Your task to perform on an android device: Play the last video I watched on Youtube Image 0: 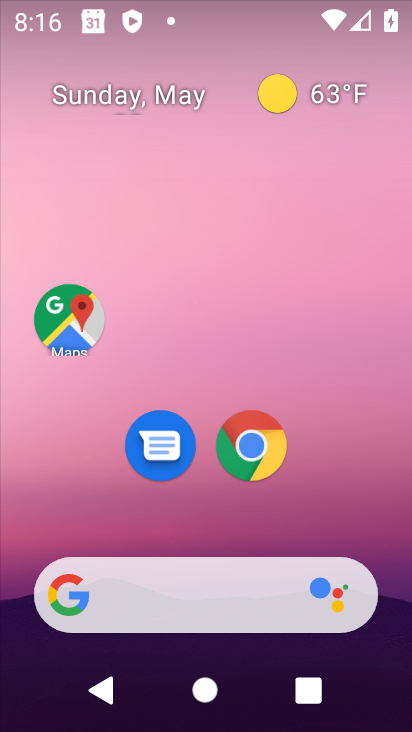
Step 0: drag from (367, 525) to (386, 208)
Your task to perform on an android device: Play the last video I watched on Youtube Image 1: 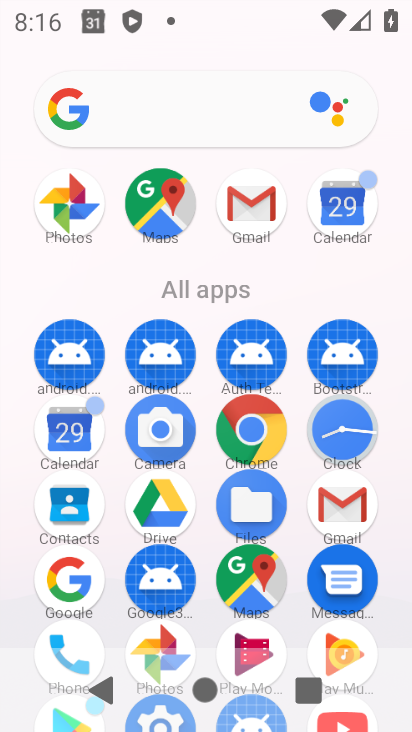
Step 1: drag from (392, 542) to (387, 331)
Your task to perform on an android device: Play the last video I watched on Youtube Image 2: 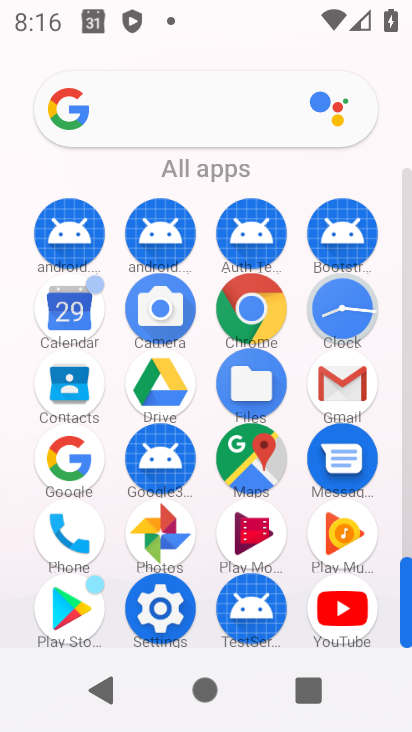
Step 2: click (339, 615)
Your task to perform on an android device: Play the last video I watched on Youtube Image 3: 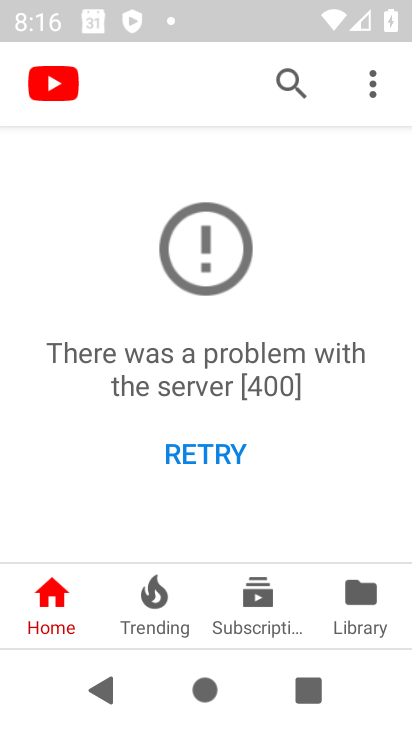
Step 3: click (359, 613)
Your task to perform on an android device: Play the last video I watched on Youtube Image 4: 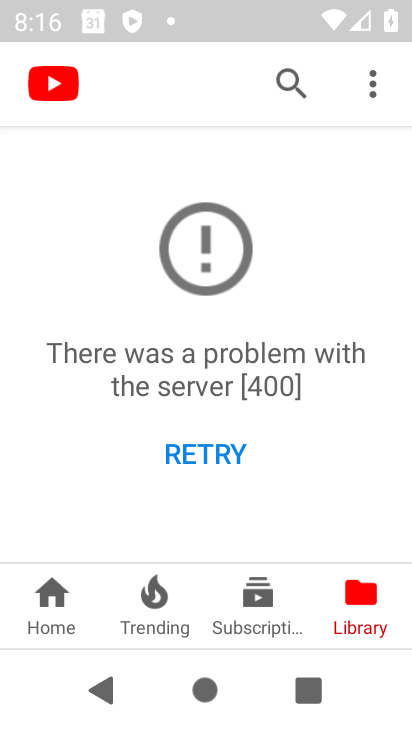
Step 4: task complete